Your task to perform on an android device: uninstall "Skype" Image 0: 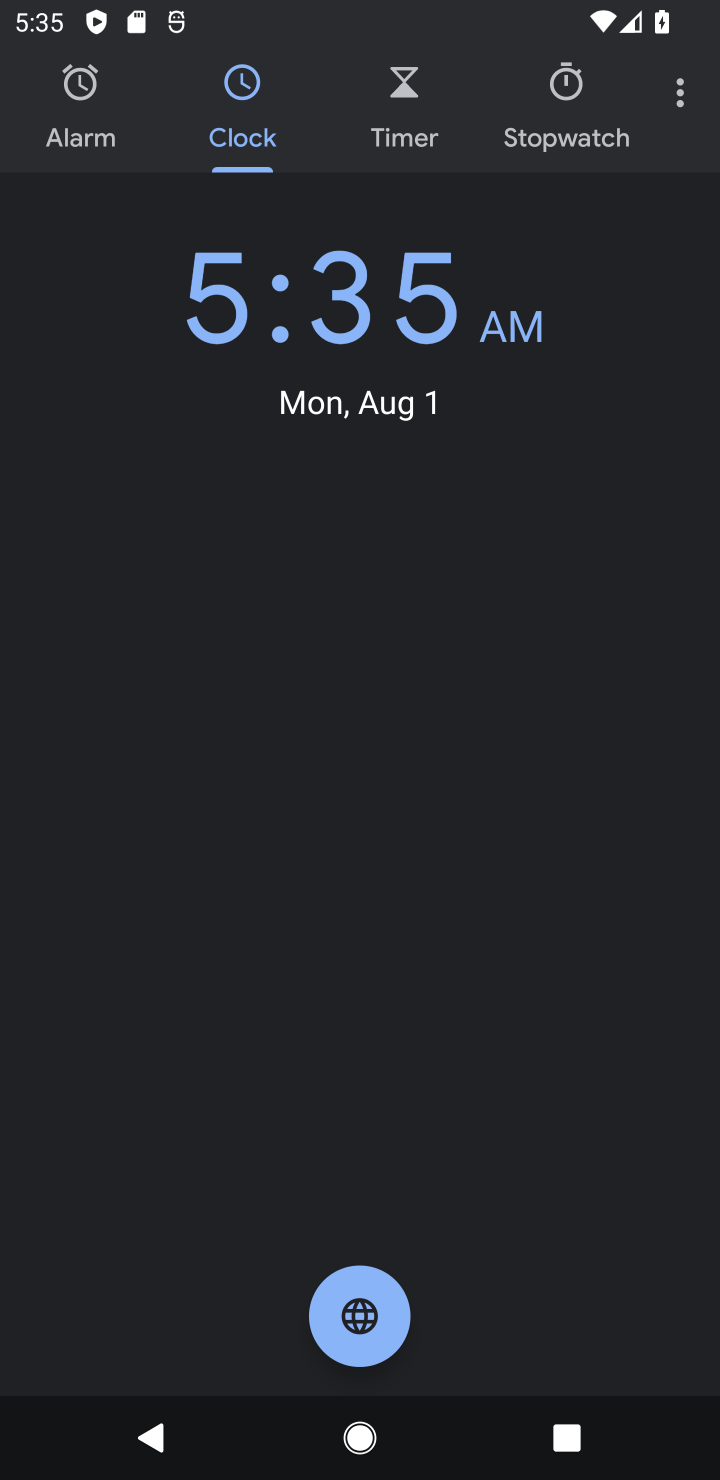
Step 0: press home button
Your task to perform on an android device: uninstall "Skype" Image 1: 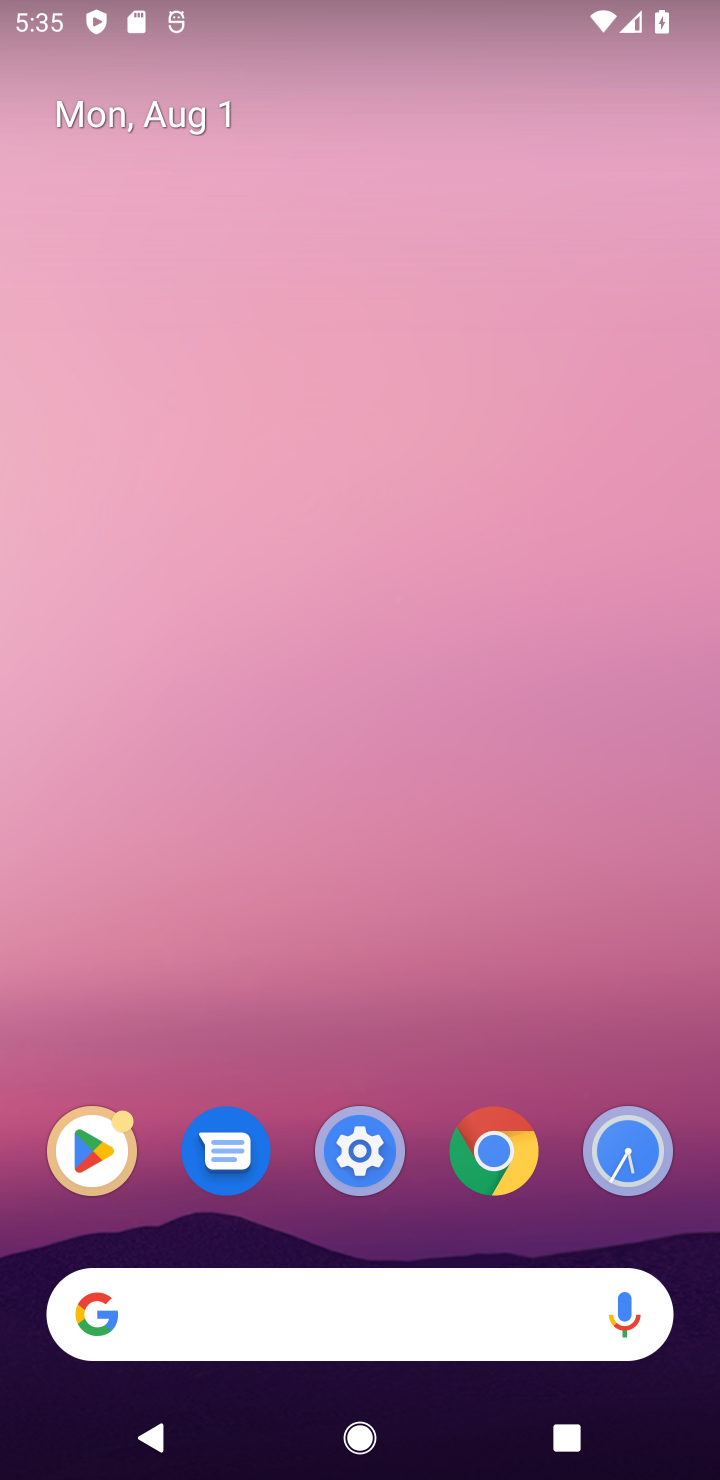
Step 1: click (91, 1163)
Your task to perform on an android device: uninstall "Skype" Image 2: 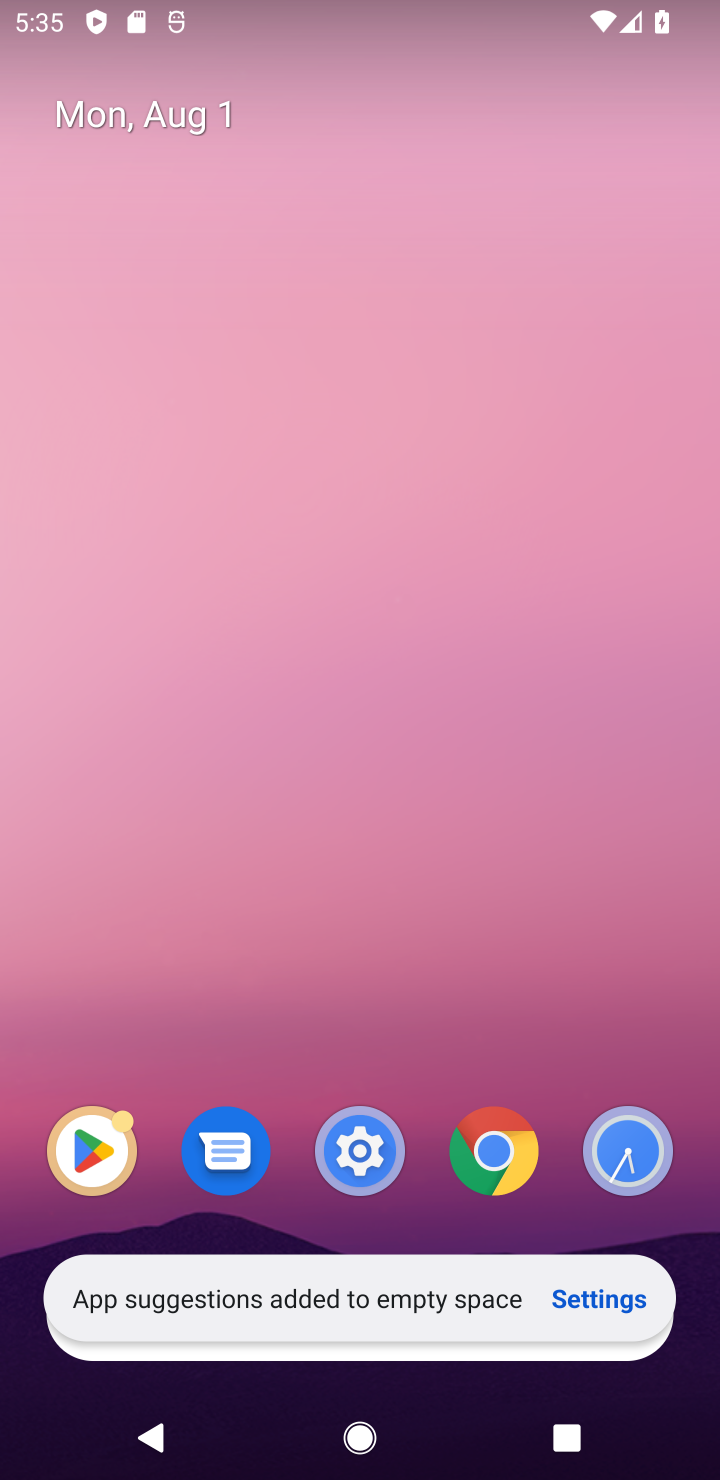
Step 2: click (91, 1163)
Your task to perform on an android device: uninstall "Skype" Image 3: 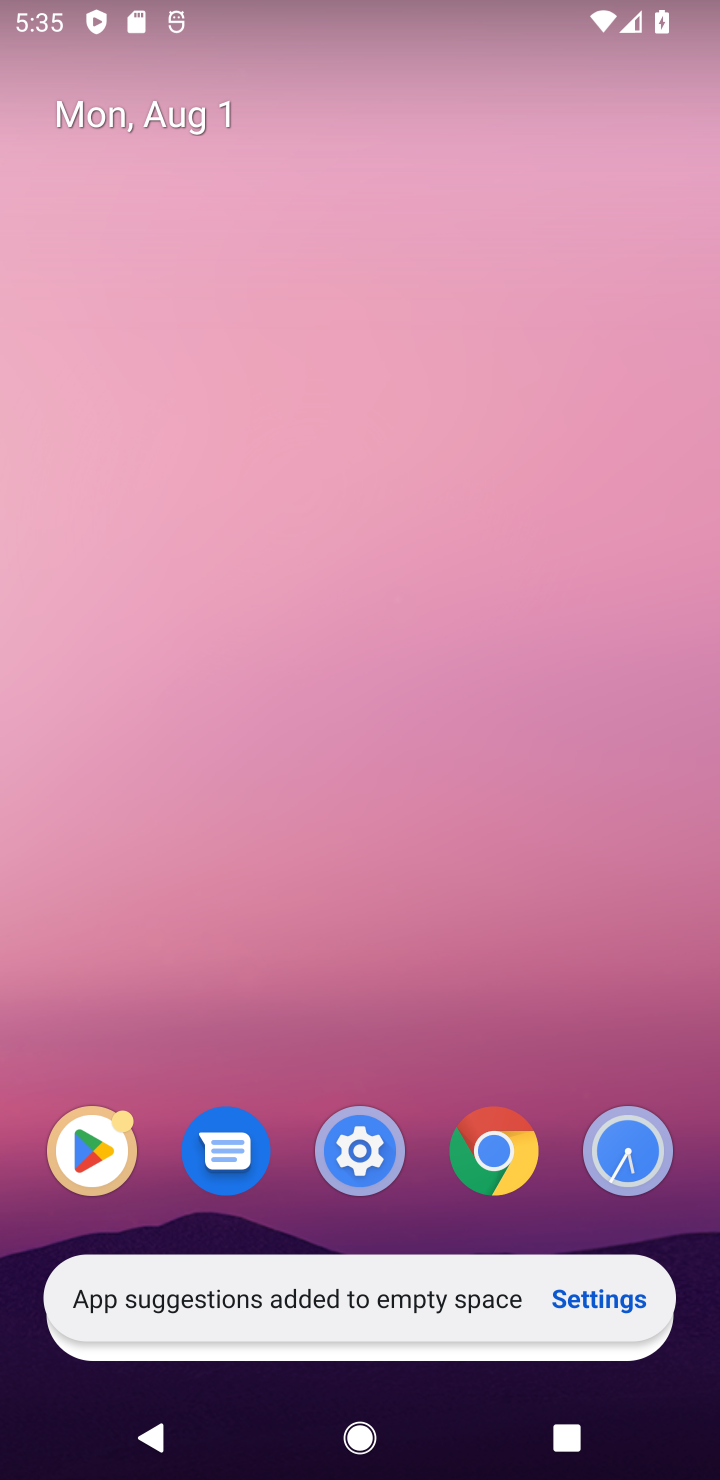
Step 3: click (91, 1149)
Your task to perform on an android device: uninstall "Skype" Image 4: 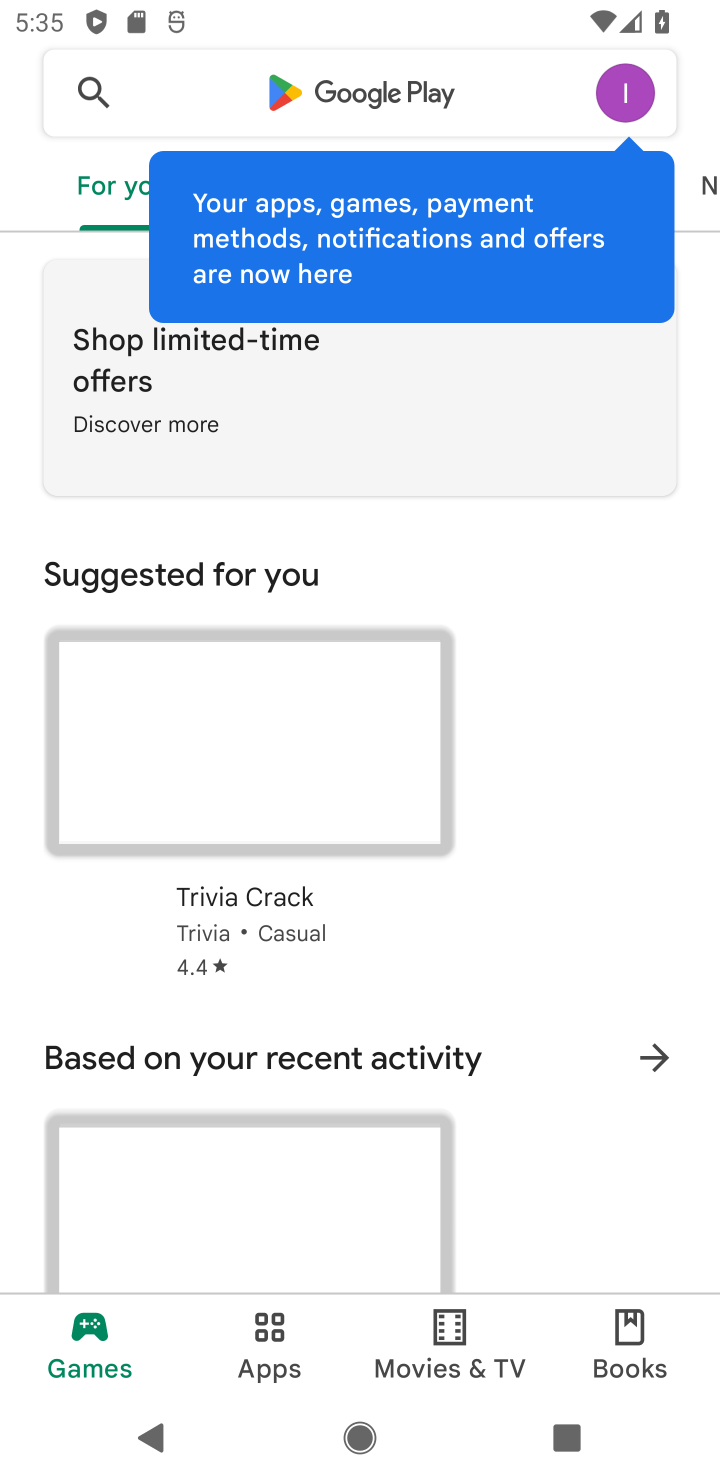
Step 4: click (366, 109)
Your task to perform on an android device: uninstall "Skype" Image 5: 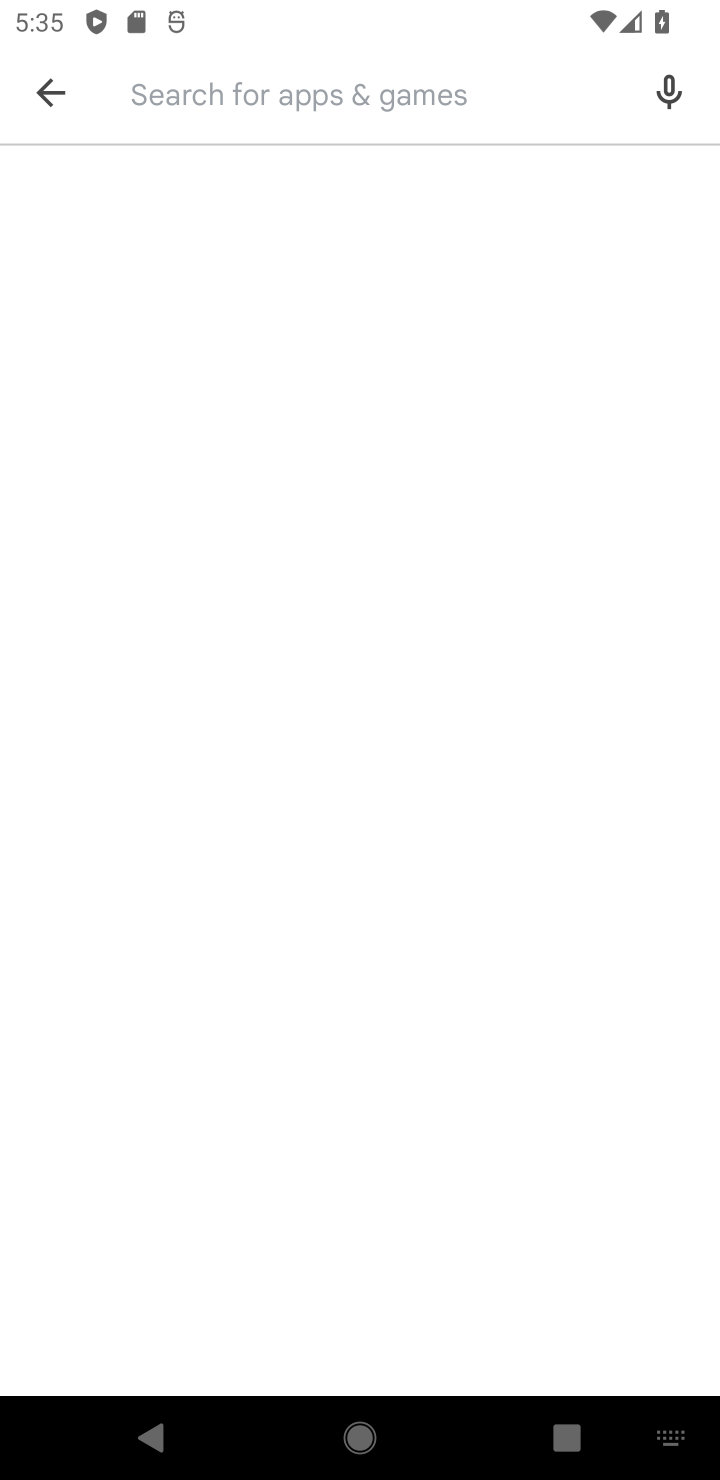
Step 5: type "Skype"
Your task to perform on an android device: uninstall "Skype" Image 6: 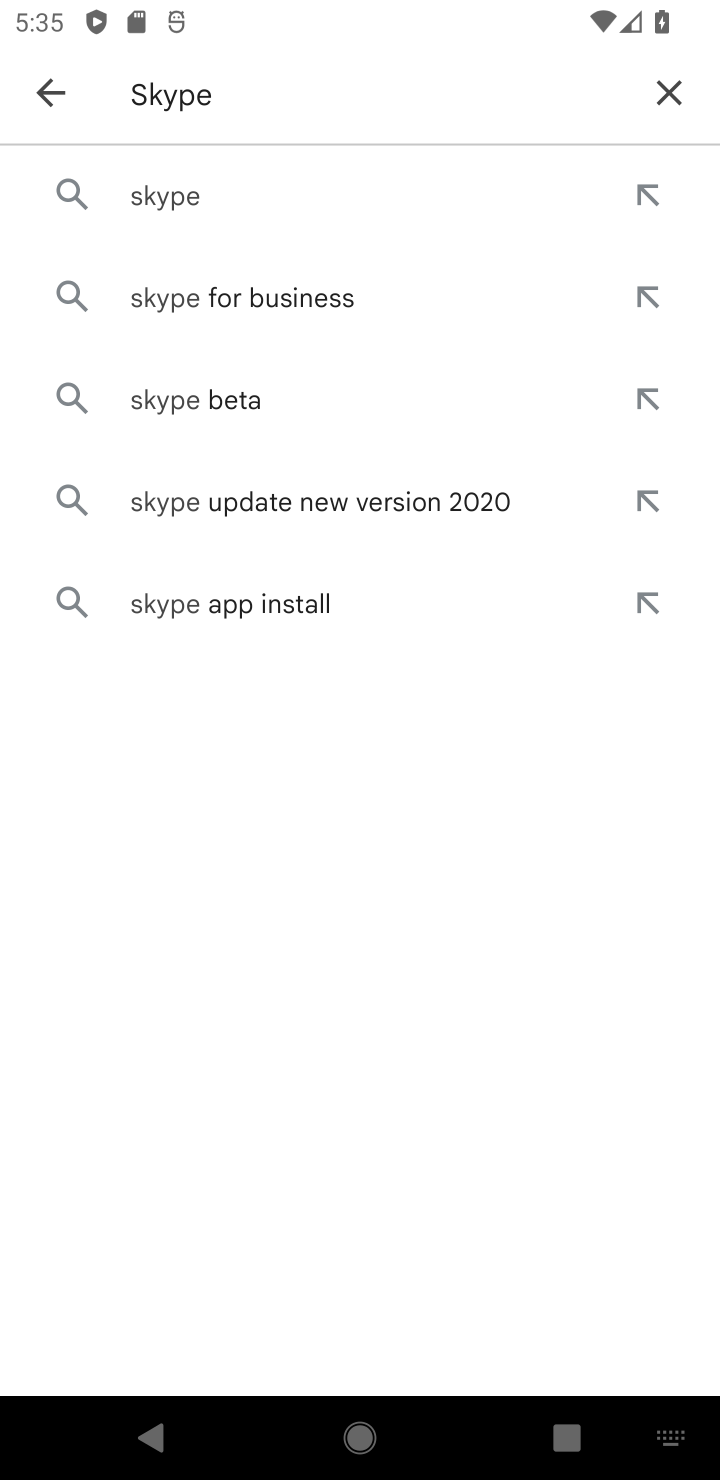
Step 6: click (194, 208)
Your task to perform on an android device: uninstall "Skype" Image 7: 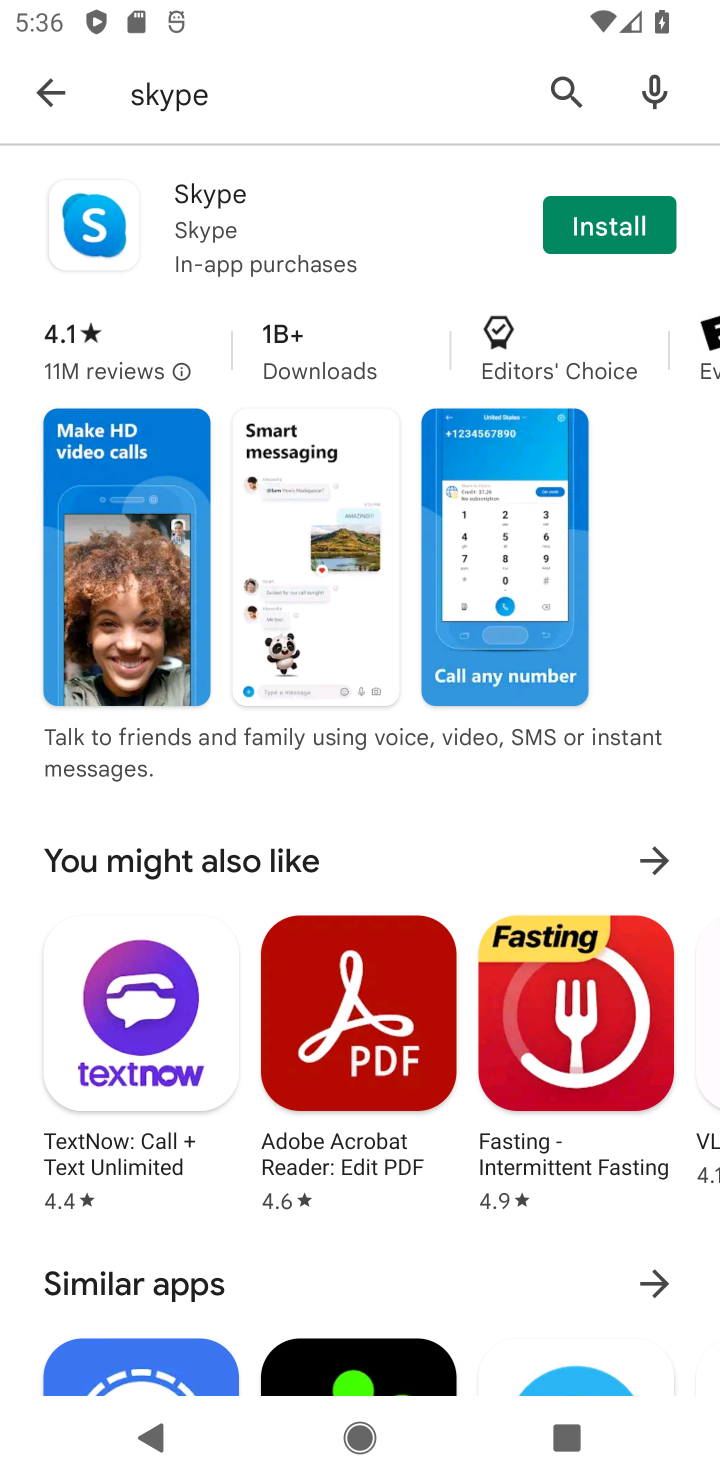
Step 7: task complete